Your task to perform on an android device: Open Amazon Image 0: 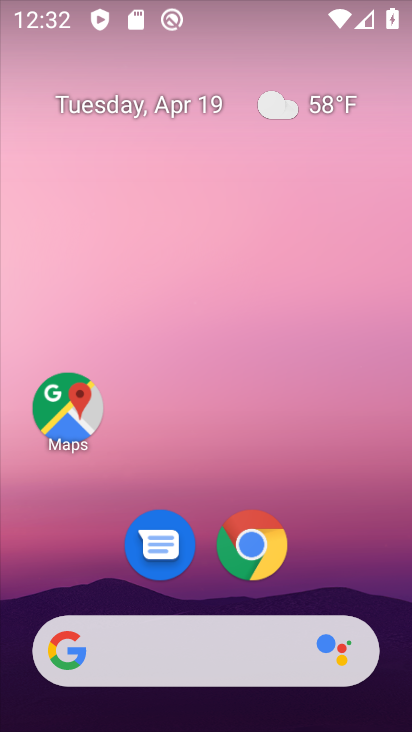
Step 0: drag from (204, 445) to (271, 5)
Your task to perform on an android device: Open Amazon Image 1: 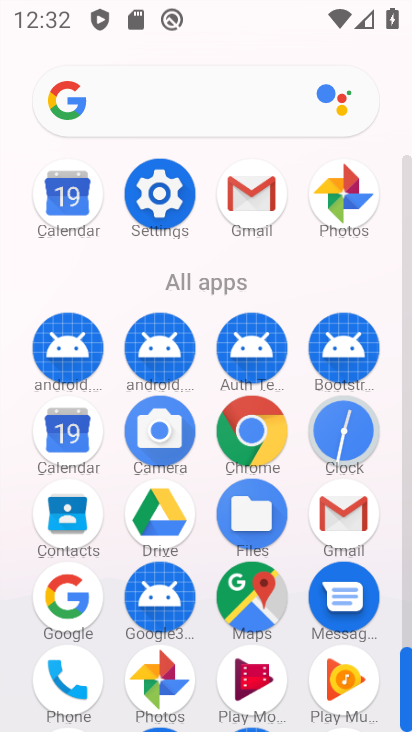
Step 1: click (266, 406)
Your task to perform on an android device: Open Amazon Image 2: 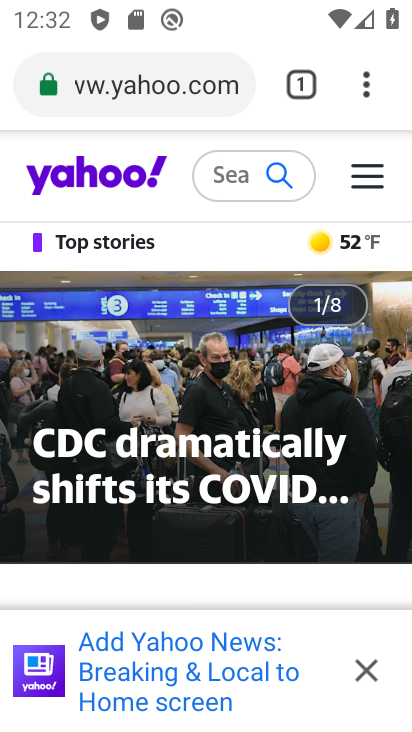
Step 2: click (305, 78)
Your task to perform on an android device: Open Amazon Image 3: 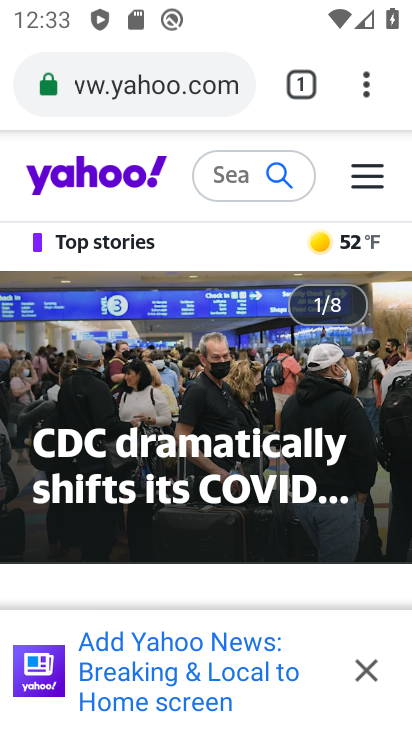
Step 3: click (306, 78)
Your task to perform on an android device: Open Amazon Image 4: 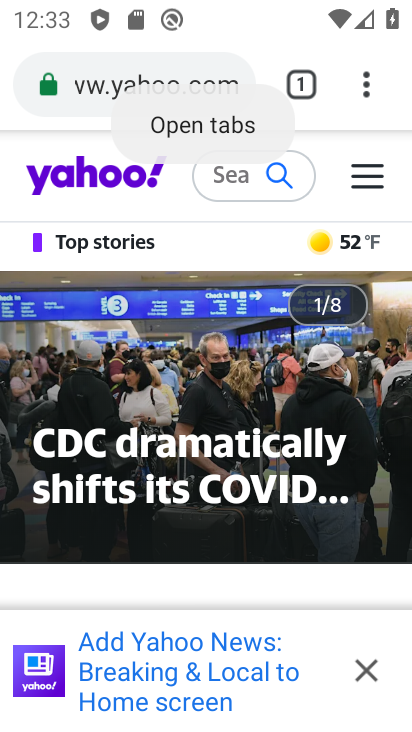
Step 4: click (307, 85)
Your task to perform on an android device: Open Amazon Image 5: 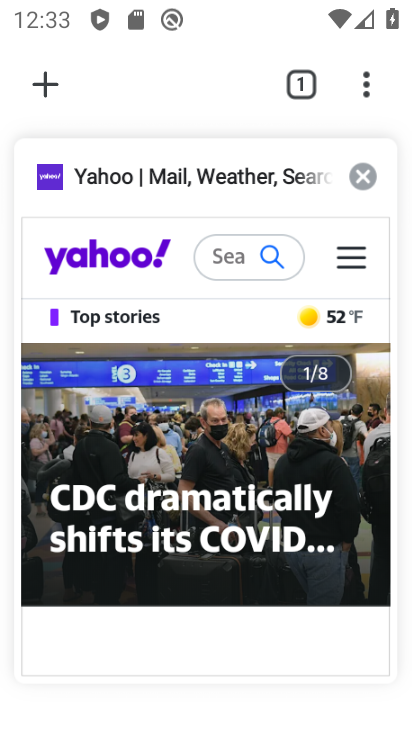
Step 5: click (46, 79)
Your task to perform on an android device: Open Amazon Image 6: 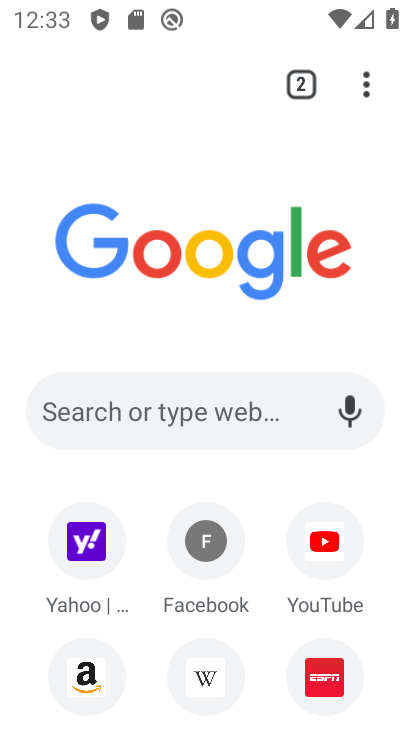
Step 6: click (83, 668)
Your task to perform on an android device: Open Amazon Image 7: 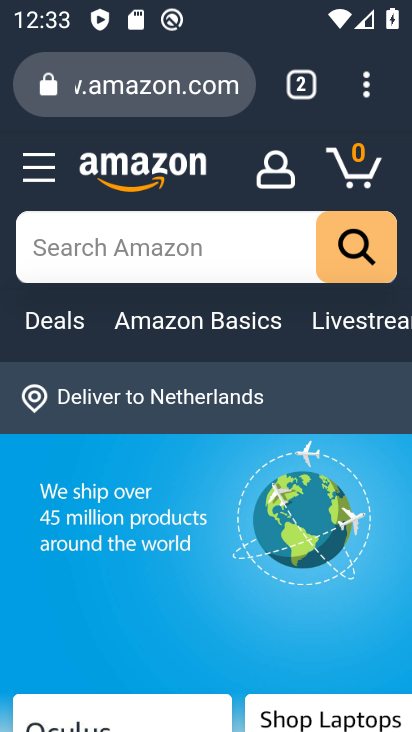
Step 7: task complete